Your task to perform on an android device: toggle sleep mode Image 0: 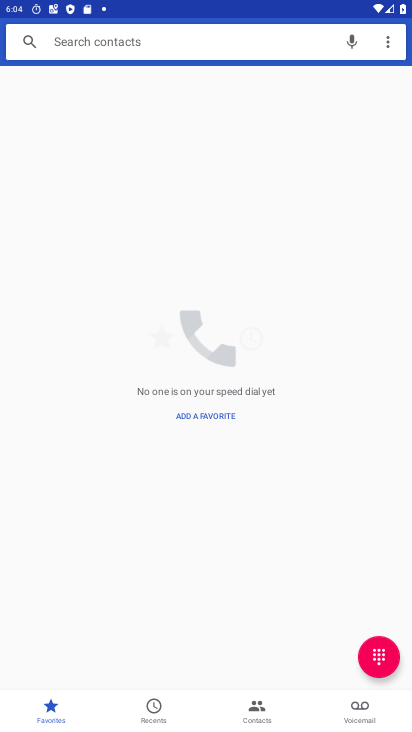
Step 0: press home button
Your task to perform on an android device: toggle sleep mode Image 1: 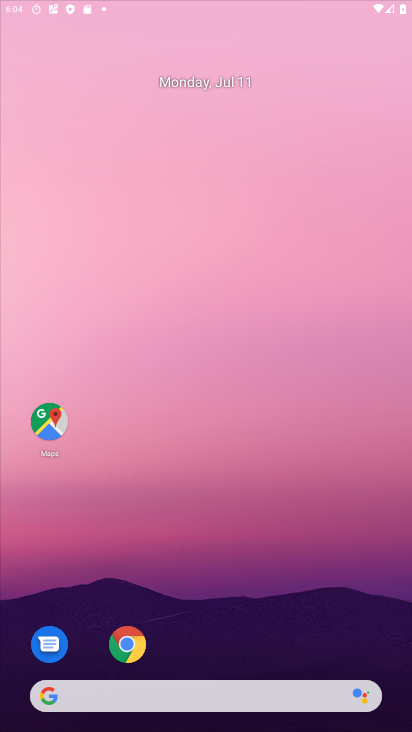
Step 1: drag from (273, 690) to (329, 5)
Your task to perform on an android device: toggle sleep mode Image 2: 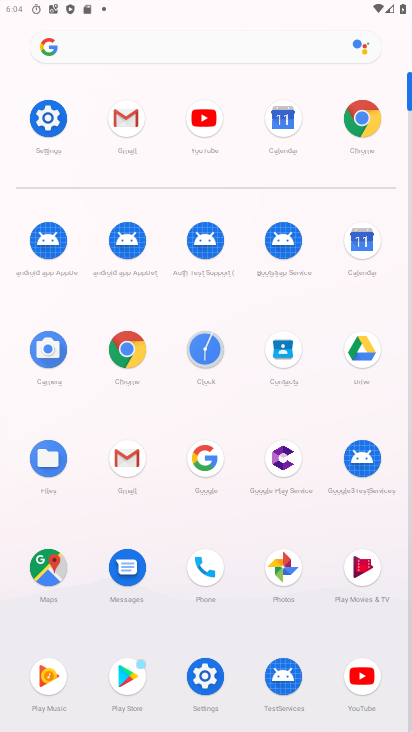
Step 2: click (43, 110)
Your task to perform on an android device: toggle sleep mode Image 3: 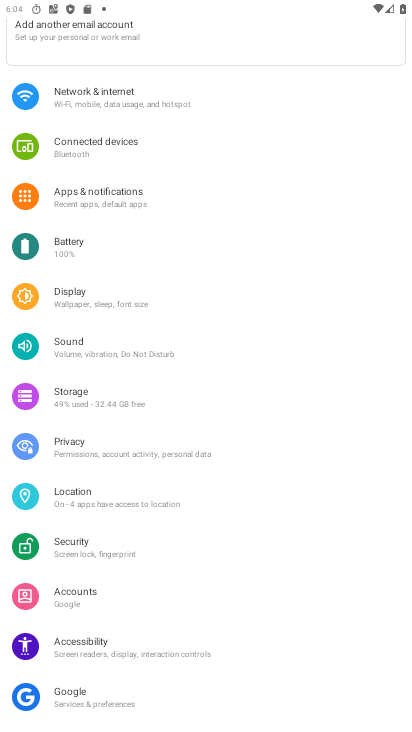
Step 3: drag from (128, 191) to (113, 591)
Your task to perform on an android device: toggle sleep mode Image 4: 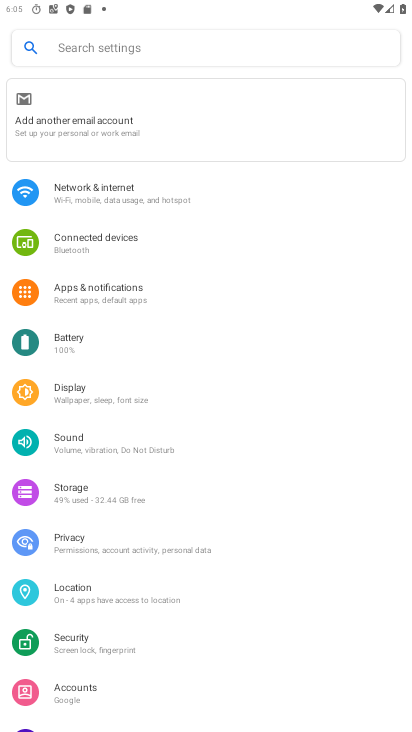
Step 4: click (108, 407)
Your task to perform on an android device: toggle sleep mode Image 5: 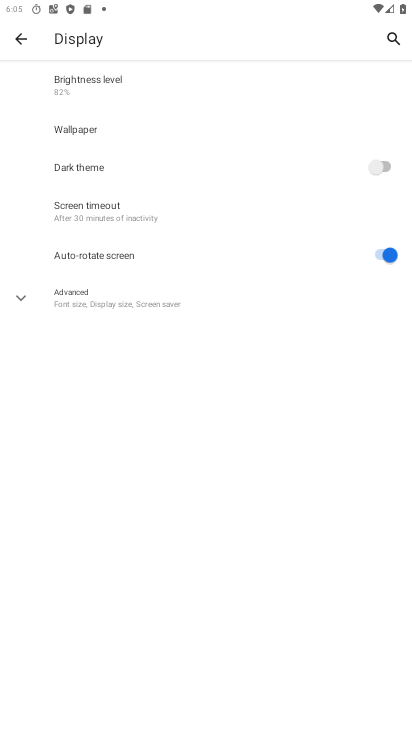
Step 5: click (107, 211)
Your task to perform on an android device: toggle sleep mode Image 6: 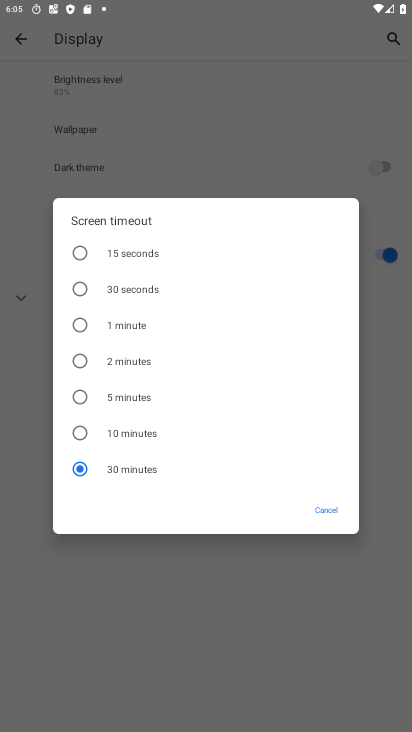
Step 6: task complete